Your task to perform on an android device: turn on airplane mode Image 0: 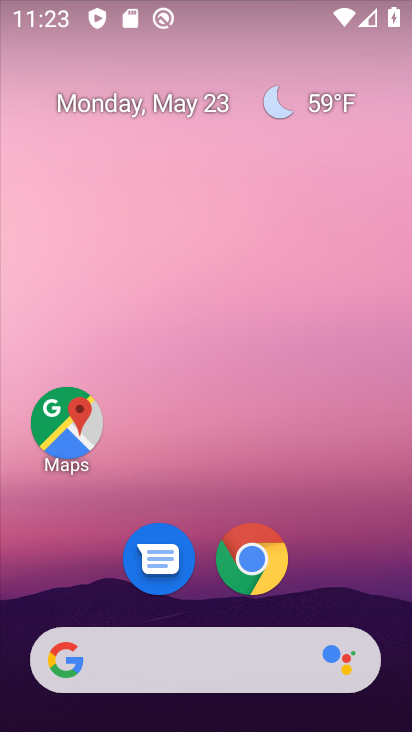
Step 0: drag from (396, 646) to (279, 82)
Your task to perform on an android device: turn on airplane mode Image 1: 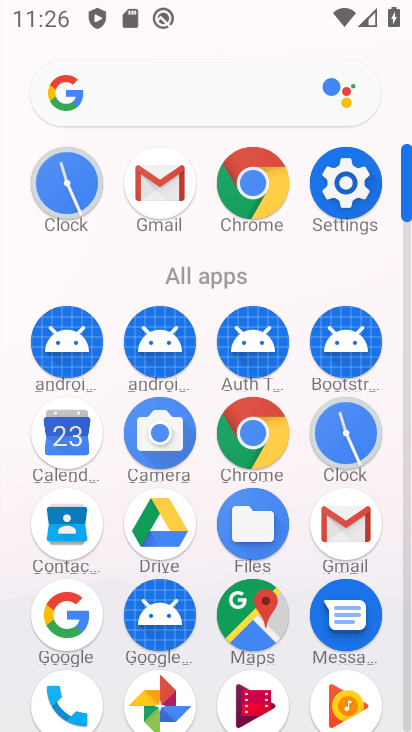
Step 1: drag from (263, 5) to (285, 672)
Your task to perform on an android device: turn on airplane mode Image 2: 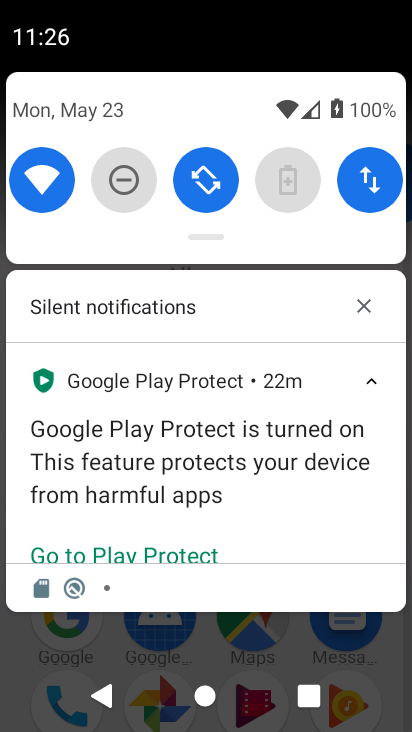
Step 2: drag from (263, 222) to (228, 674)
Your task to perform on an android device: turn on airplane mode Image 3: 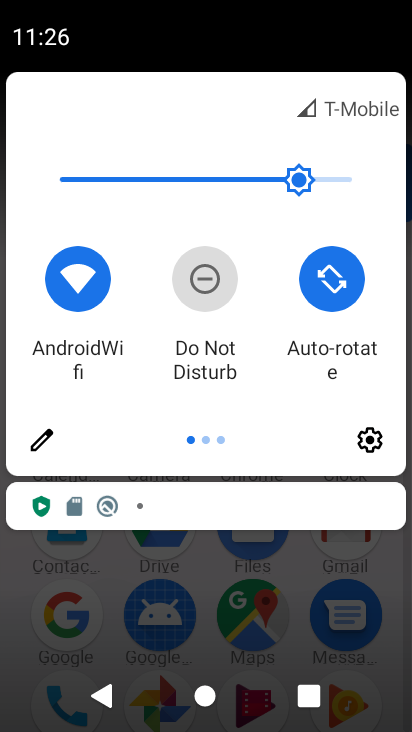
Step 3: drag from (328, 378) to (34, 393)
Your task to perform on an android device: turn on airplane mode Image 4: 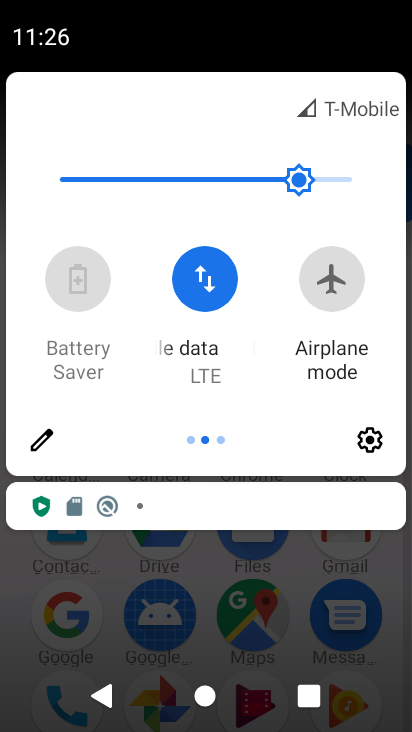
Step 4: click (331, 278)
Your task to perform on an android device: turn on airplane mode Image 5: 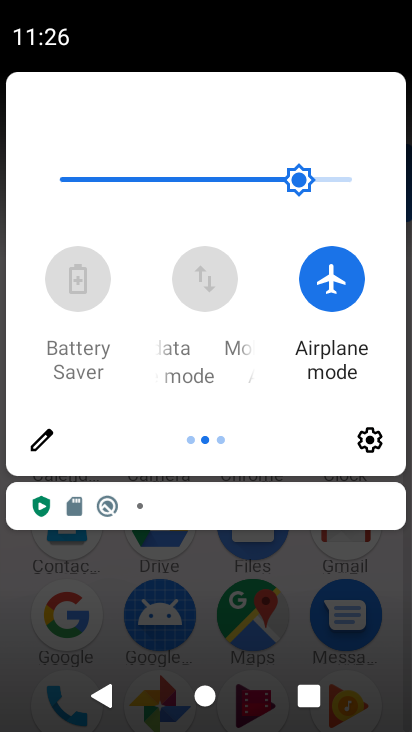
Step 5: task complete